Your task to perform on an android device: open app "Google Sheets" Image 0: 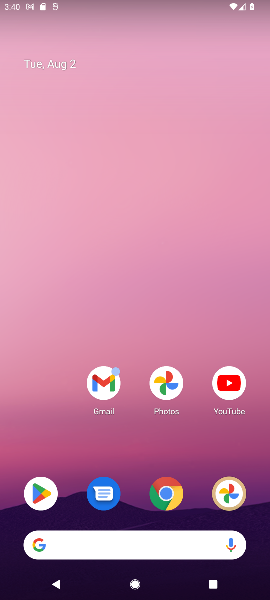
Step 0: click (43, 493)
Your task to perform on an android device: open app "Google Sheets" Image 1: 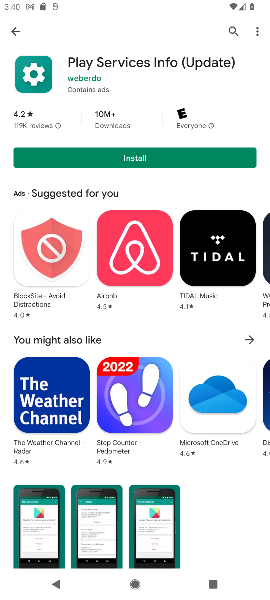
Step 1: click (15, 30)
Your task to perform on an android device: open app "Google Sheets" Image 2: 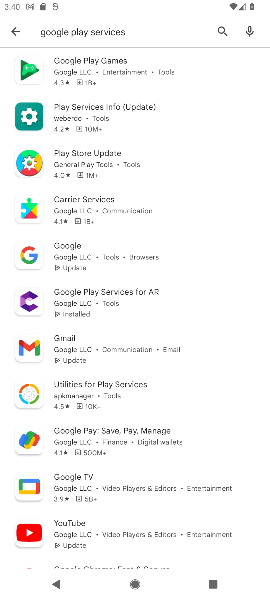
Step 2: click (218, 26)
Your task to perform on an android device: open app "Google Sheets" Image 3: 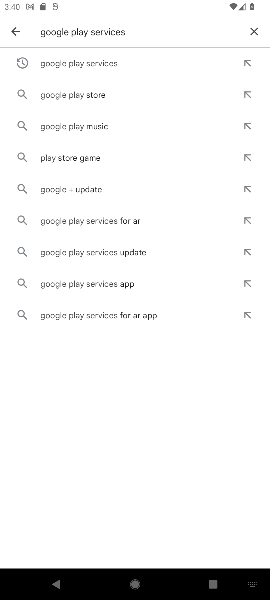
Step 3: click (251, 28)
Your task to perform on an android device: open app "Google Sheets" Image 4: 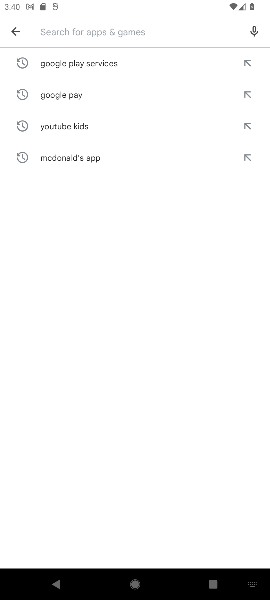
Step 4: type "google sheets"
Your task to perform on an android device: open app "Google Sheets" Image 5: 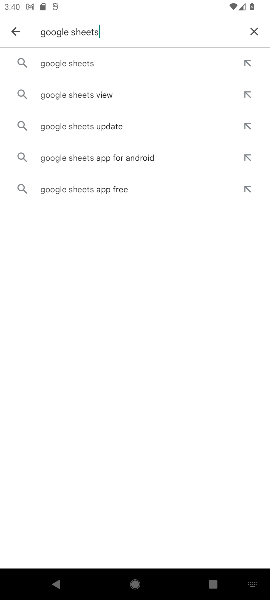
Step 5: click (68, 66)
Your task to perform on an android device: open app "Google Sheets" Image 6: 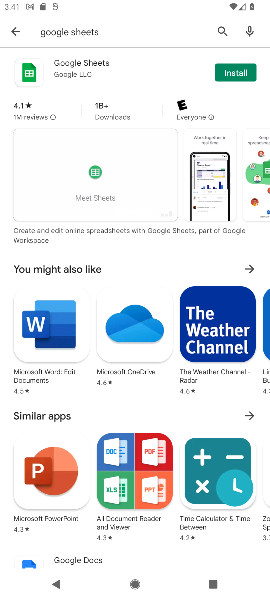
Step 6: task complete